Your task to perform on an android device: open a bookmark in the chrome app Image 0: 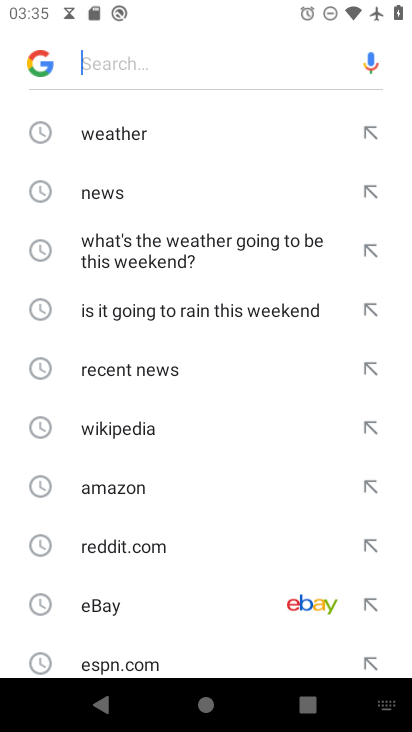
Step 0: press home button
Your task to perform on an android device: open a bookmark in the chrome app Image 1: 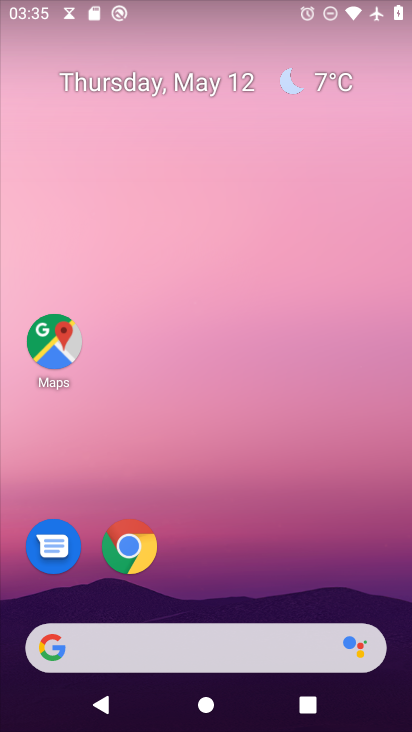
Step 1: drag from (174, 655) to (315, 178)
Your task to perform on an android device: open a bookmark in the chrome app Image 2: 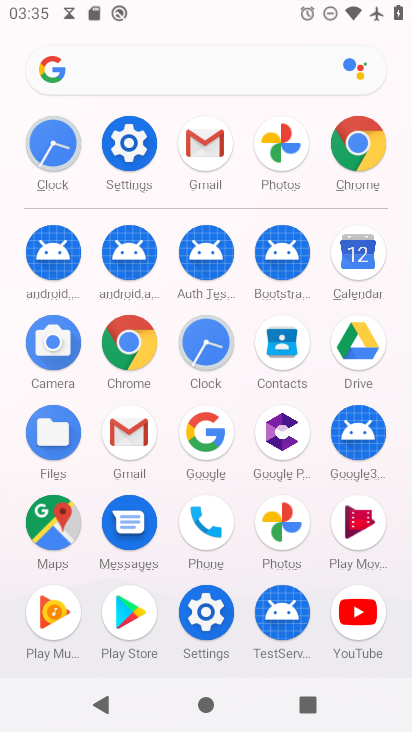
Step 2: click (354, 155)
Your task to perform on an android device: open a bookmark in the chrome app Image 3: 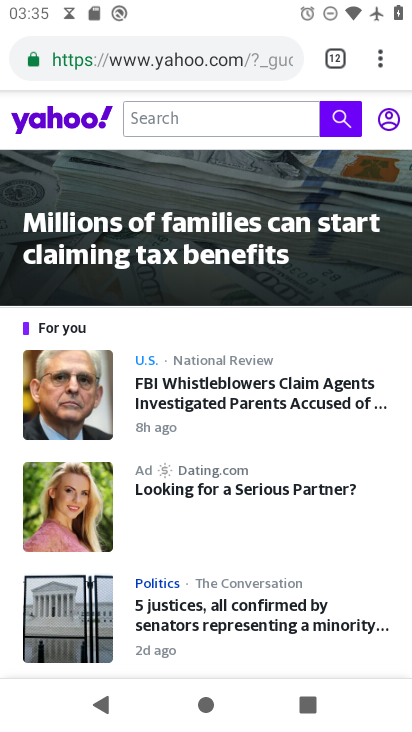
Step 3: task complete